Your task to perform on an android device: Open location settings Image 0: 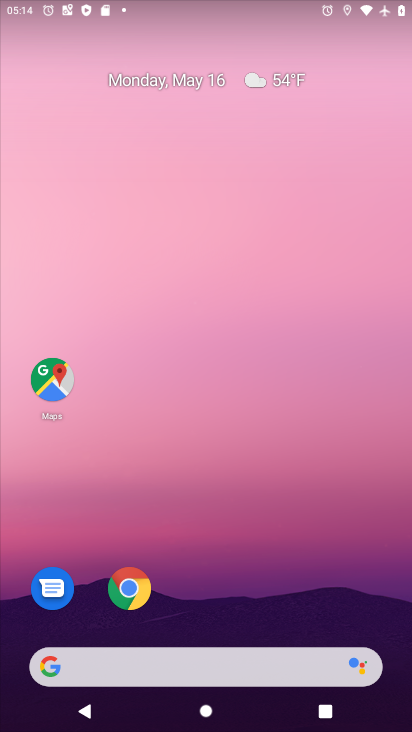
Step 0: drag from (236, 563) to (240, 7)
Your task to perform on an android device: Open location settings Image 1: 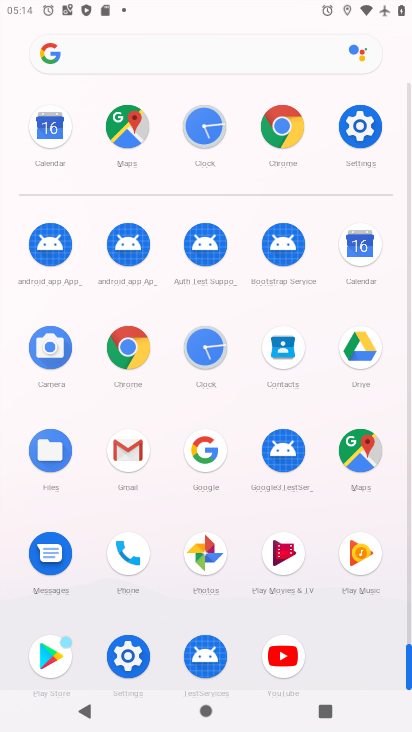
Step 1: drag from (15, 534) to (45, 180)
Your task to perform on an android device: Open location settings Image 2: 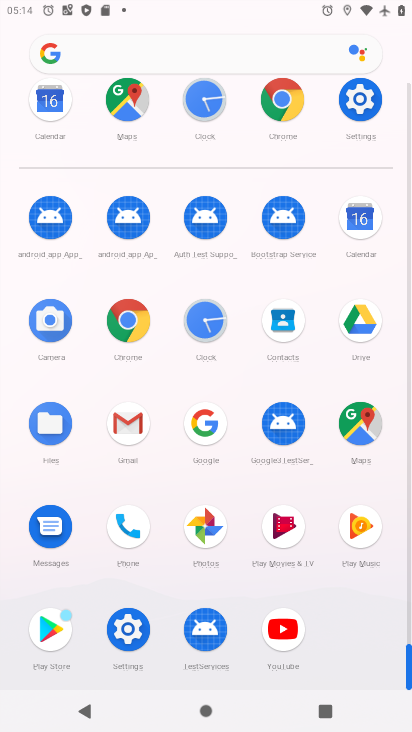
Step 2: click (129, 622)
Your task to perform on an android device: Open location settings Image 3: 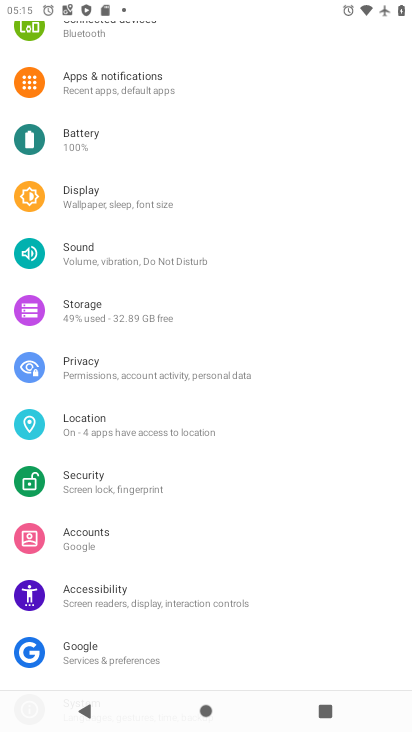
Step 3: click (119, 422)
Your task to perform on an android device: Open location settings Image 4: 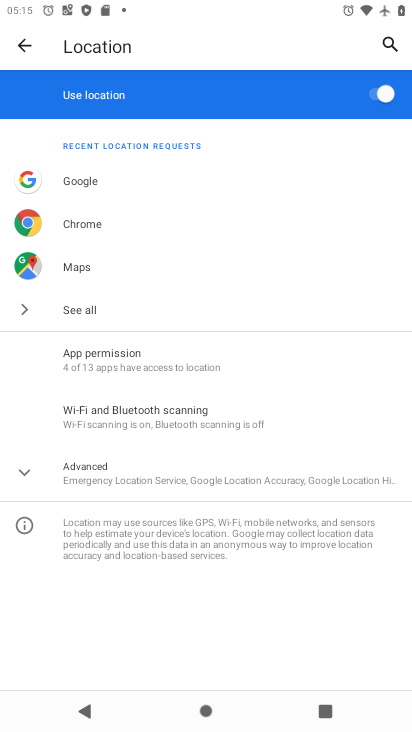
Step 4: click (44, 472)
Your task to perform on an android device: Open location settings Image 5: 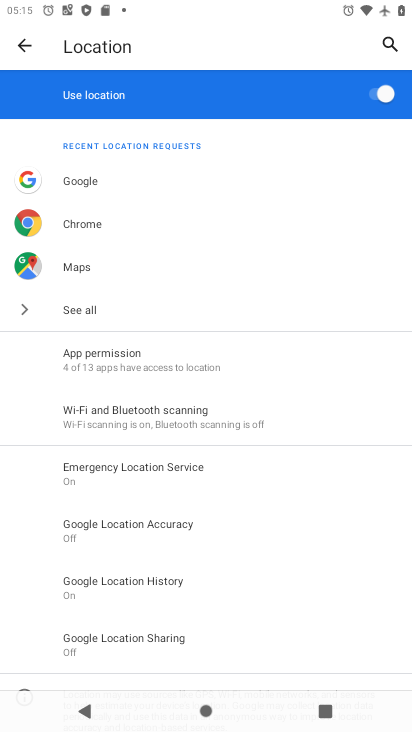
Step 5: task complete